Your task to perform on an android device: change the clock display to digital Image 0: 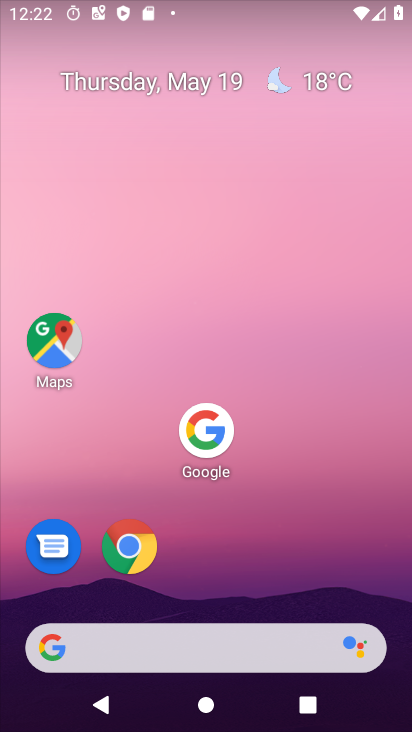
Step 0: drag from (243, 534) to (209, 94)
Your task to perform on an android device: change the clock display to digital Image 1: 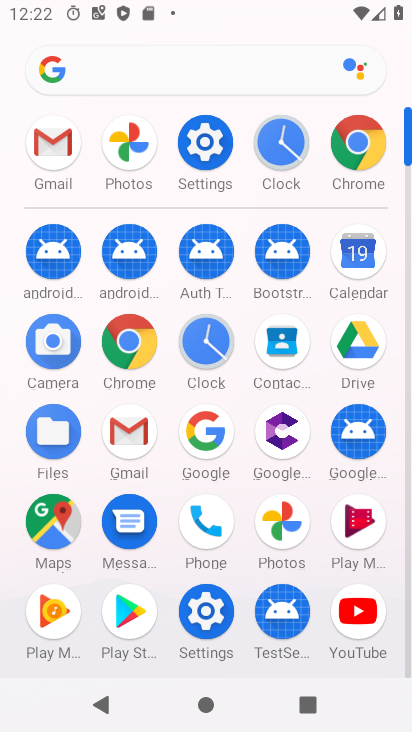
Step 1: click (285, 149)
Your task to perform on an android device: change the clock display to digital Image 2: 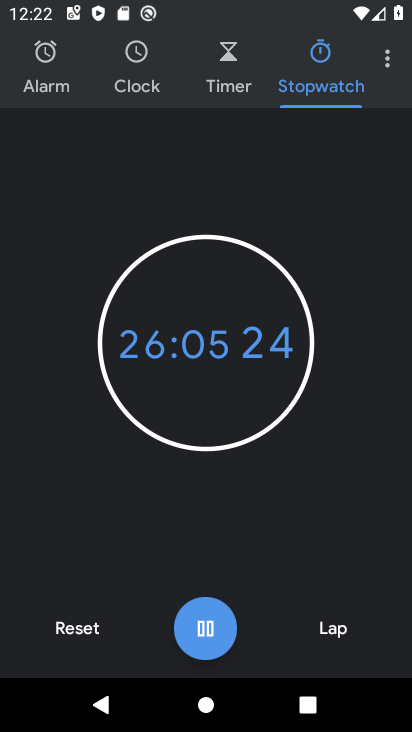
Step 2: click (383, 62)
Your task to perform on an android device: change the clock display to digital Image 3: 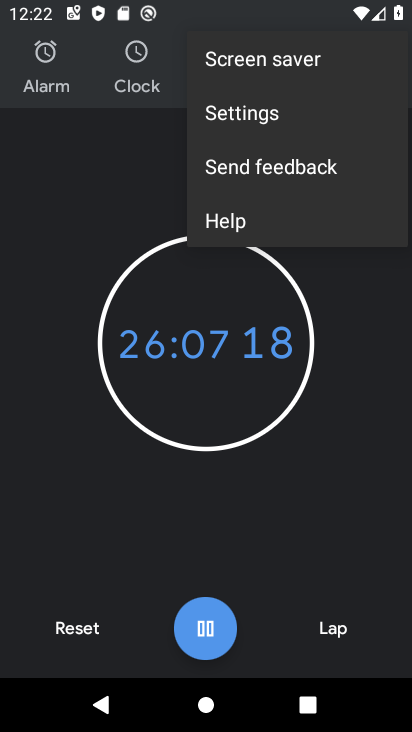
Step 3: click (284, 111)
Your task to perform on an android device: change the clock display to digital Image 4: 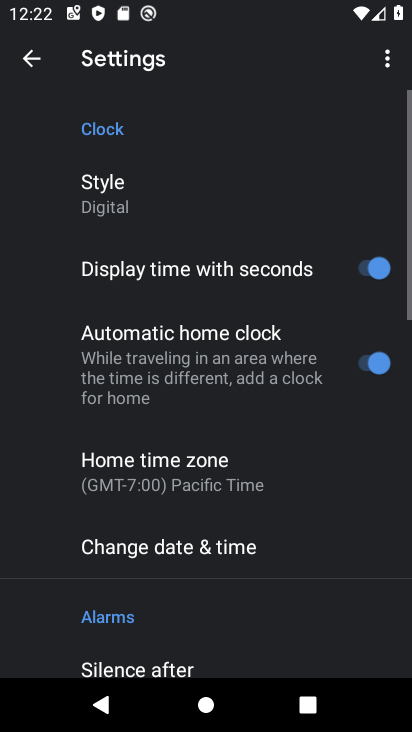
Step 4: click (176, 204)
Your task to perform on an android device: change the clock display to digital Image 5: 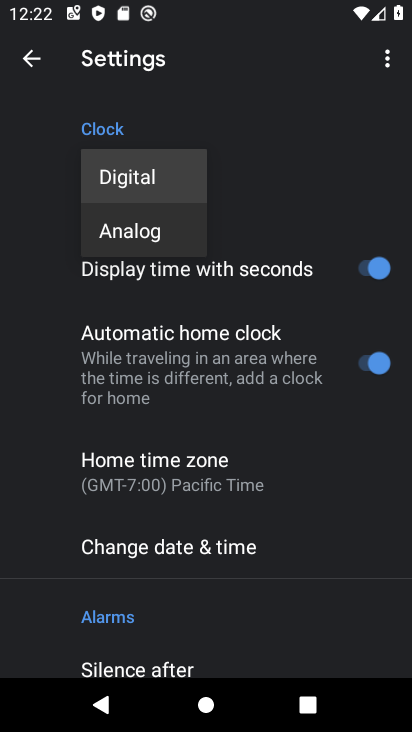
Step 5: task complete